Your task to perform on an android device: What's on my calendar tomorrow? Image 0: 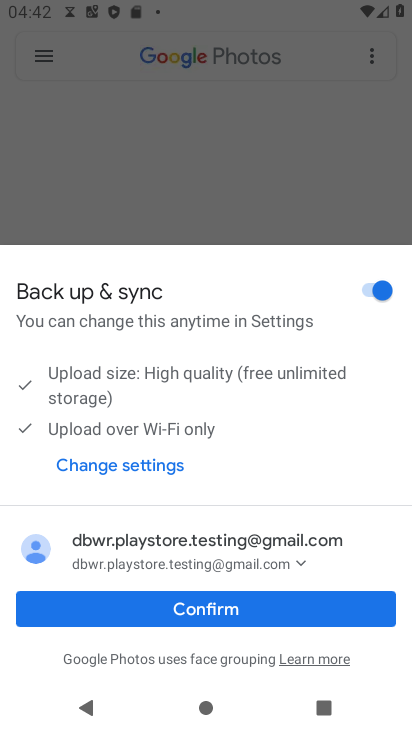
Step 0: press back button
Your task to perform on an android device: What's on my calendar tomorrow? Image 1: 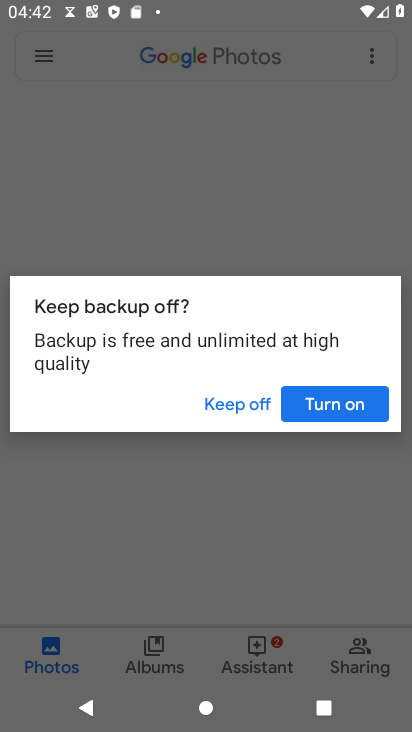
Step 1: press home button
Your task to perform on an android device: What's on my calendar tomorrow? Image 2: 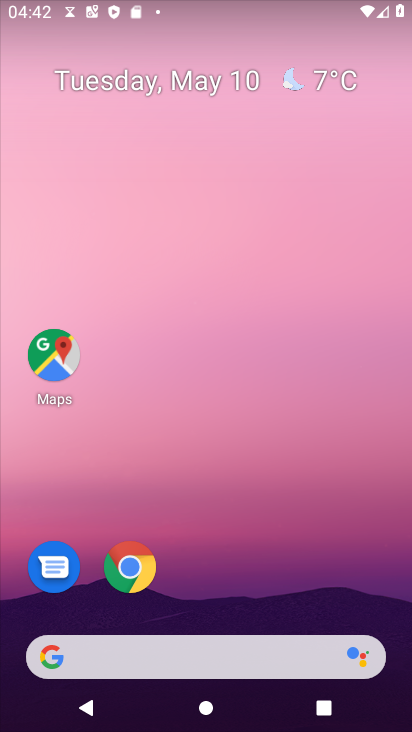
Step 2: drag from (249, 567) to (164, 101)
Your task to perform on an android device: What's on my calendar tomorrow? Image 3: 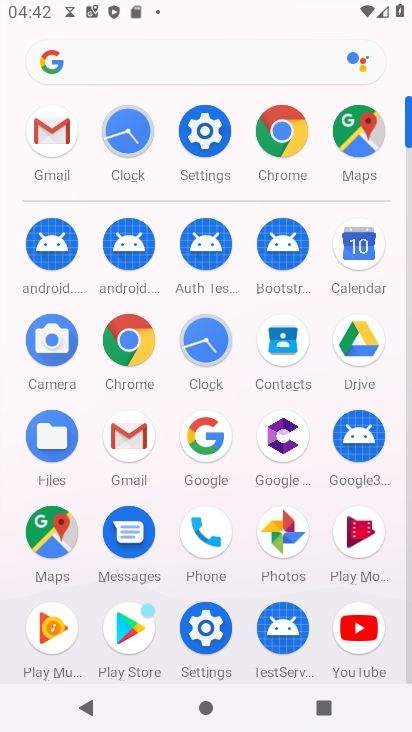
Step 3: click (361, 245)
Your task to perform on an android device: What's on my calendar tomorrow? Image 4: 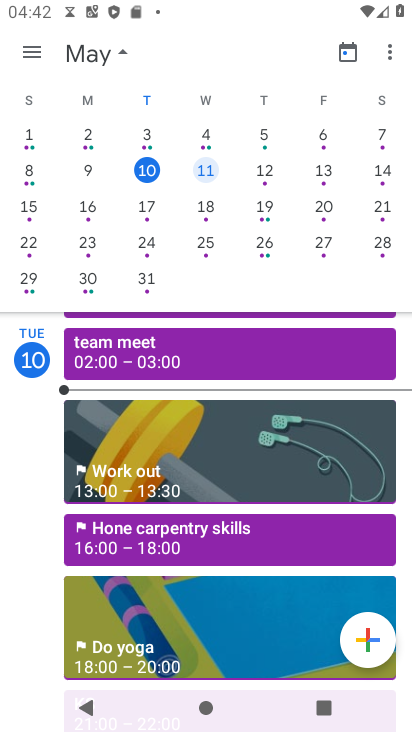
Step 4: click (205, 167)
Your task to perform on an android device: What's on my calendar tomorrow? Image 5: 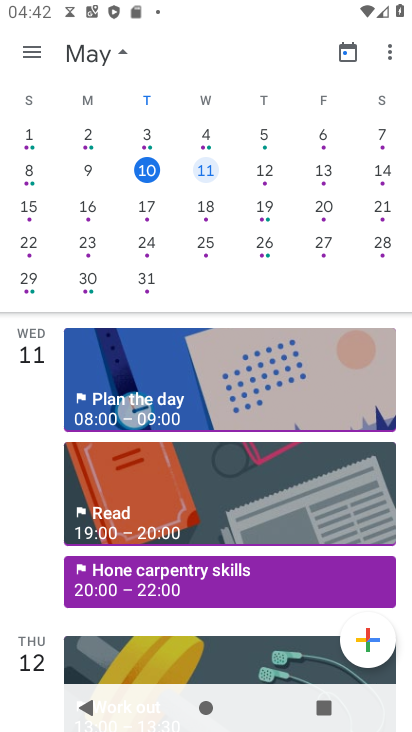
Step 5: task complete